Your task to perform on an android device: Search for "logitech g910" on amazon.com, select the first entry, add it to the cart, then select checkout. Image 0: 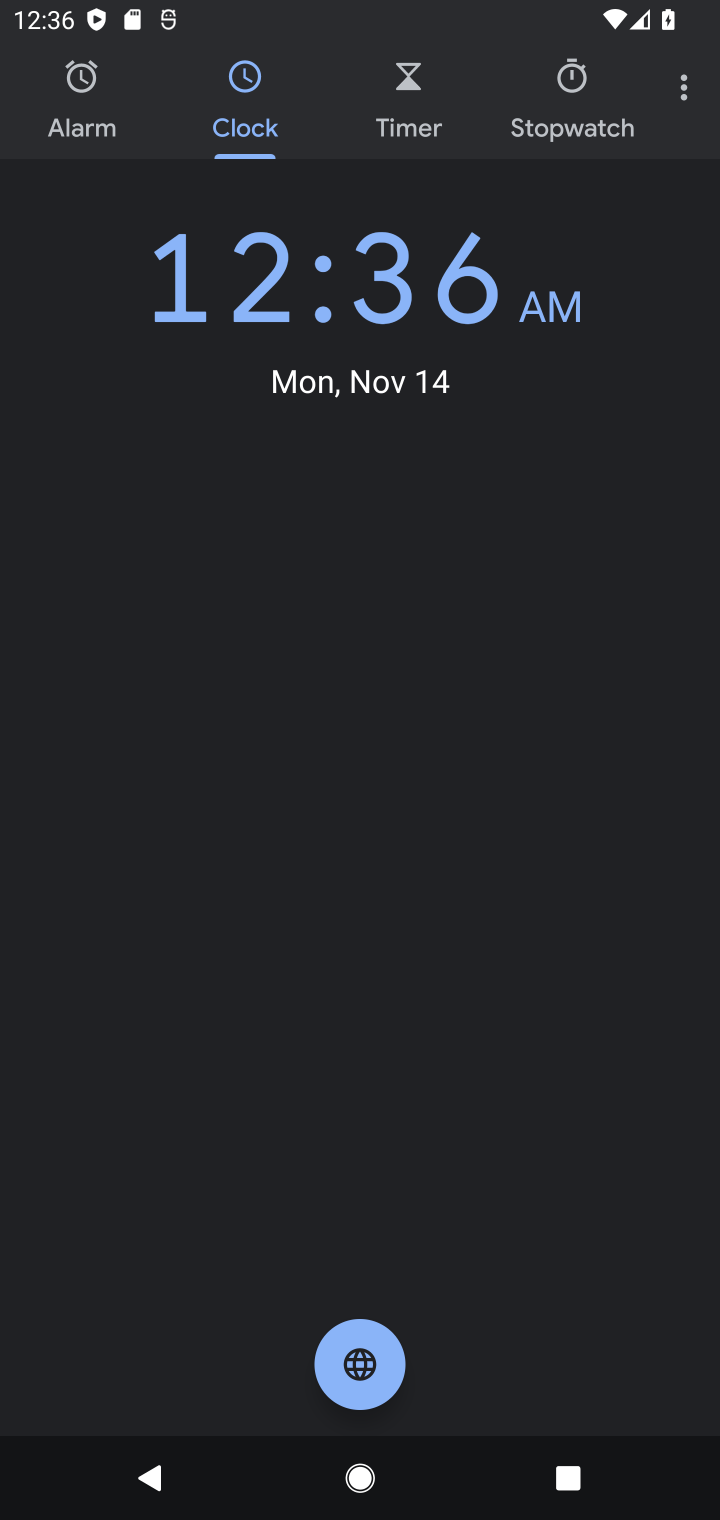
Step 0: press home button
Your task to perform on an android device: Search for "logitech g910" on amazon.com, select the first entry, add it to the cart, then select checkout. Image 1: 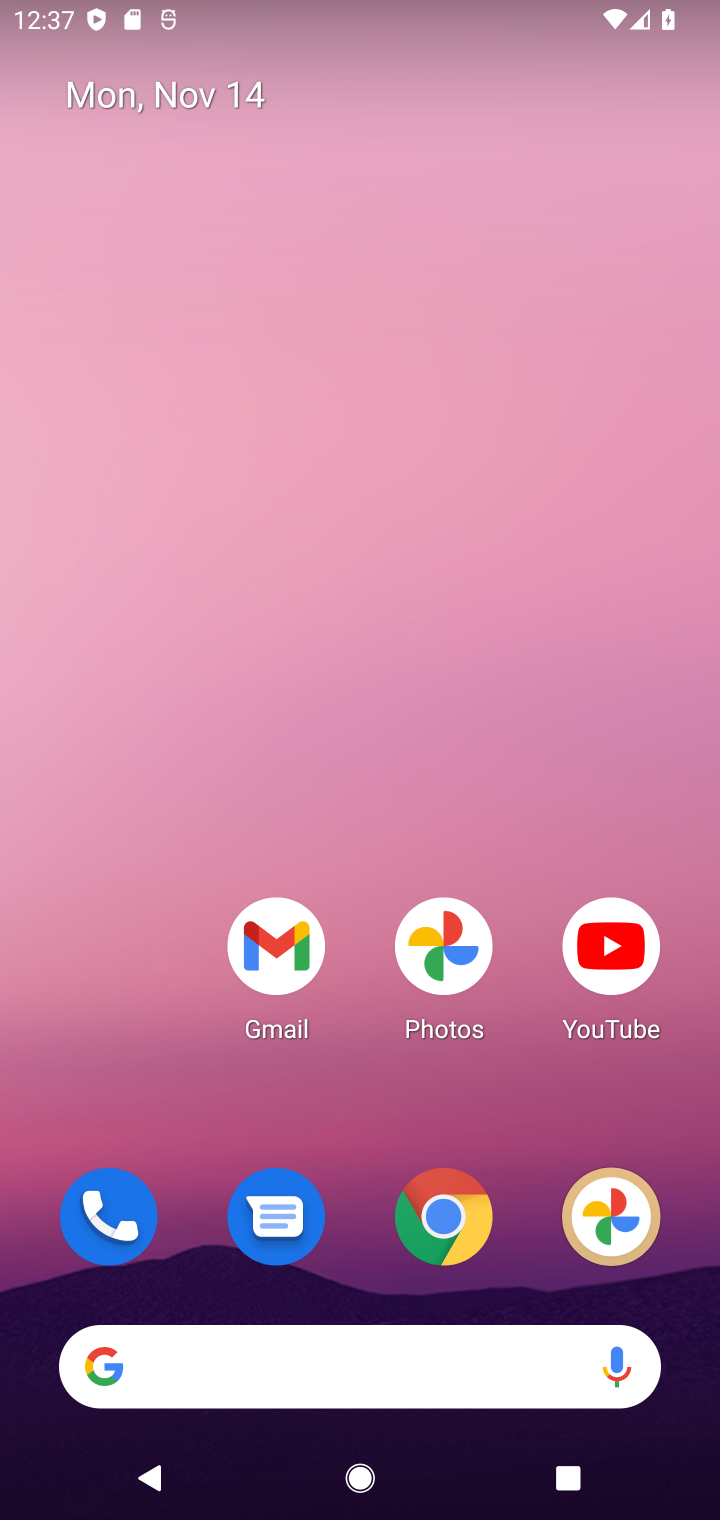
Step 1: click (437, 1211)
Your task to perform on an android device: Search for "logitech g910" on amazon.com, select the first entry, add it to the cart, then select checkout. Image 2: 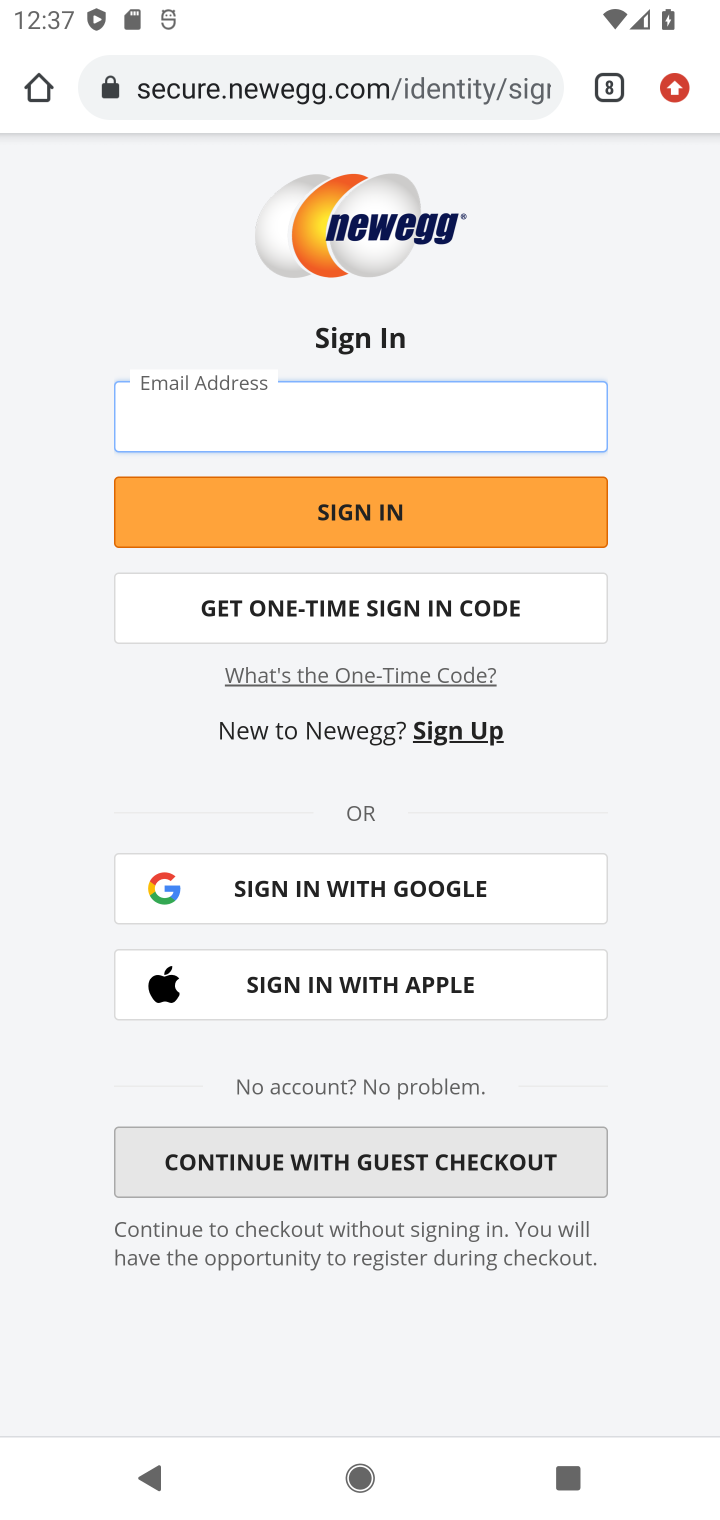
Step 2: click (603, 112)
Your task to perform on an android device: Search for "logitech g910" on amazon.com, select the first entry, add it to the cart, then select checkout. Image 3: 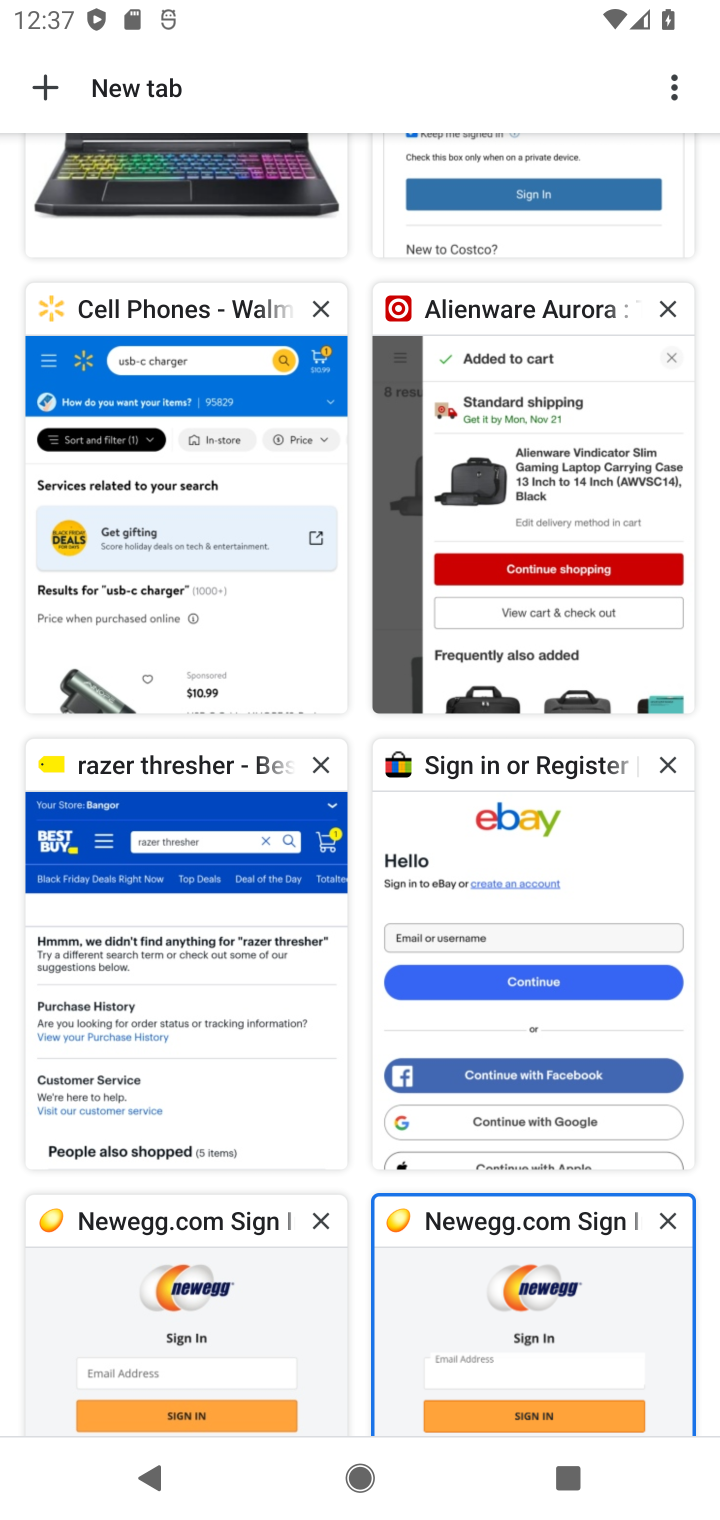
Step 3: click (281, 205)
Your task to perform on an android device: Search for "logitech g910" on amazon.com, select the first entry, add it to the cart, then select checkout. Image 4: 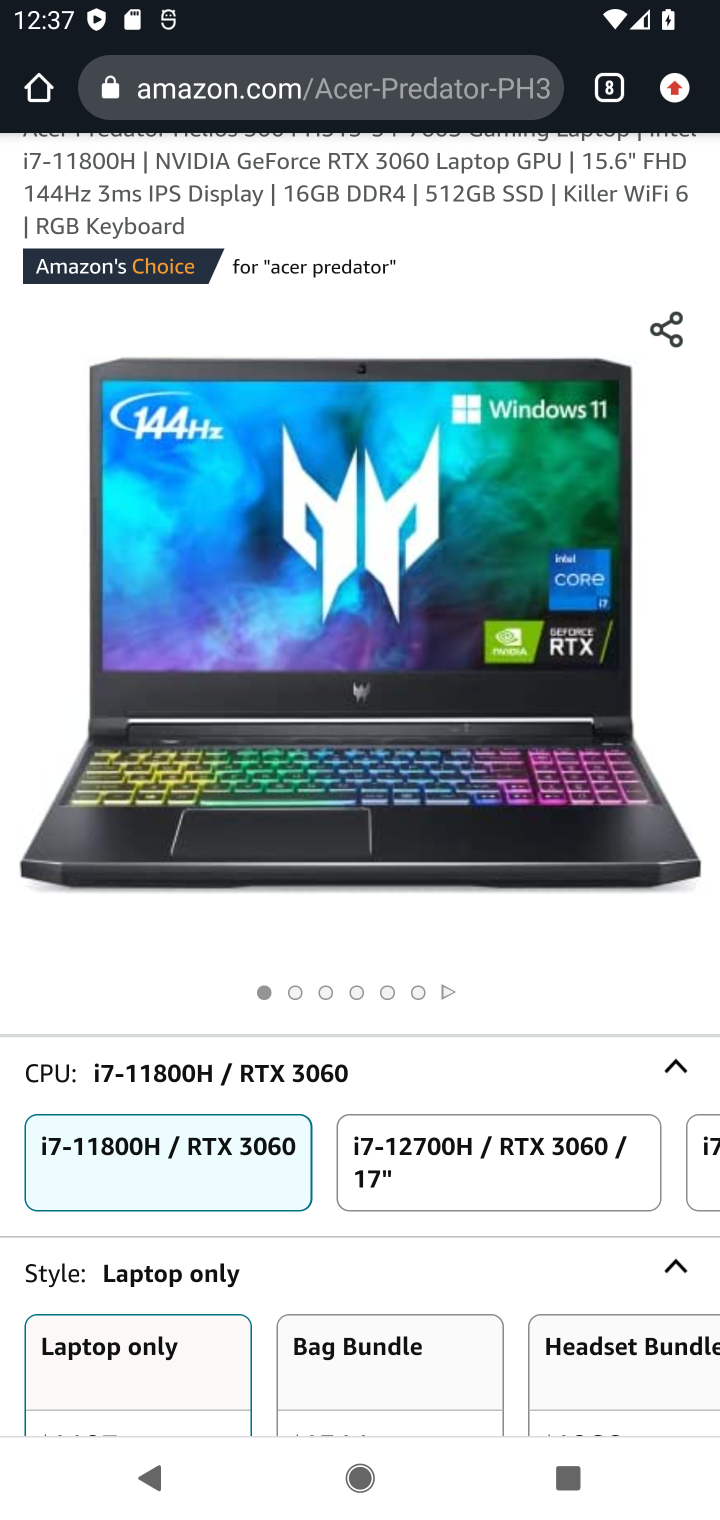
Step 4: drag from (538, 272) to (400, 815)
Your task to perform on an android device: Search for "logitech g910" on amazon.com, select the first entry, add it to the cart, then select checkout. Image 5: 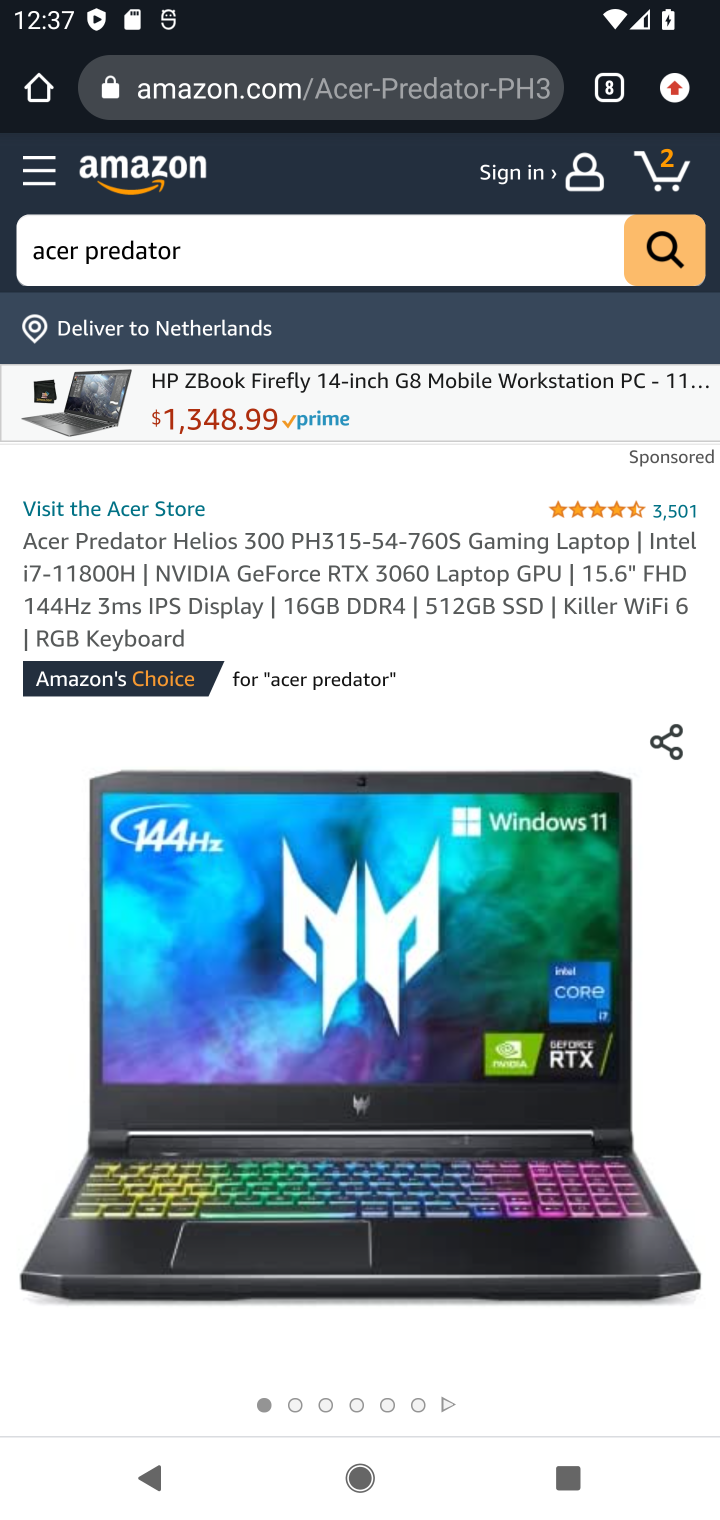
Step 5: drag from (340, 461) to (393, 1185)
Your task to perform on an android device: Search for "logitech g910" on amazon.com, select the first entry, add it to the cart, then select checkout. Image 6: 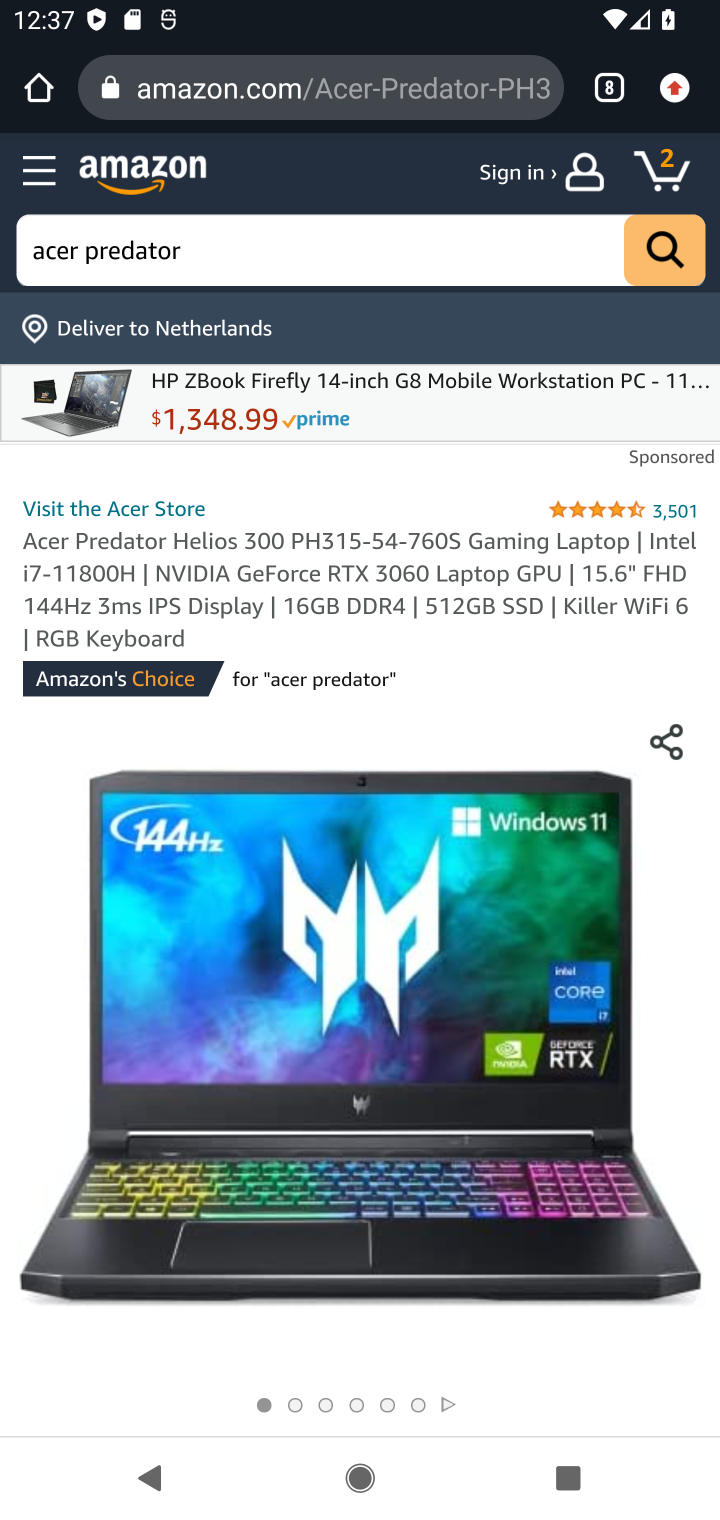
Step 6: click (210, 256)
Your task to perform on an android device: Search for "logitech g910" on amazon.com, select the first entry, add it to the cart, then select checkout. Image 7: 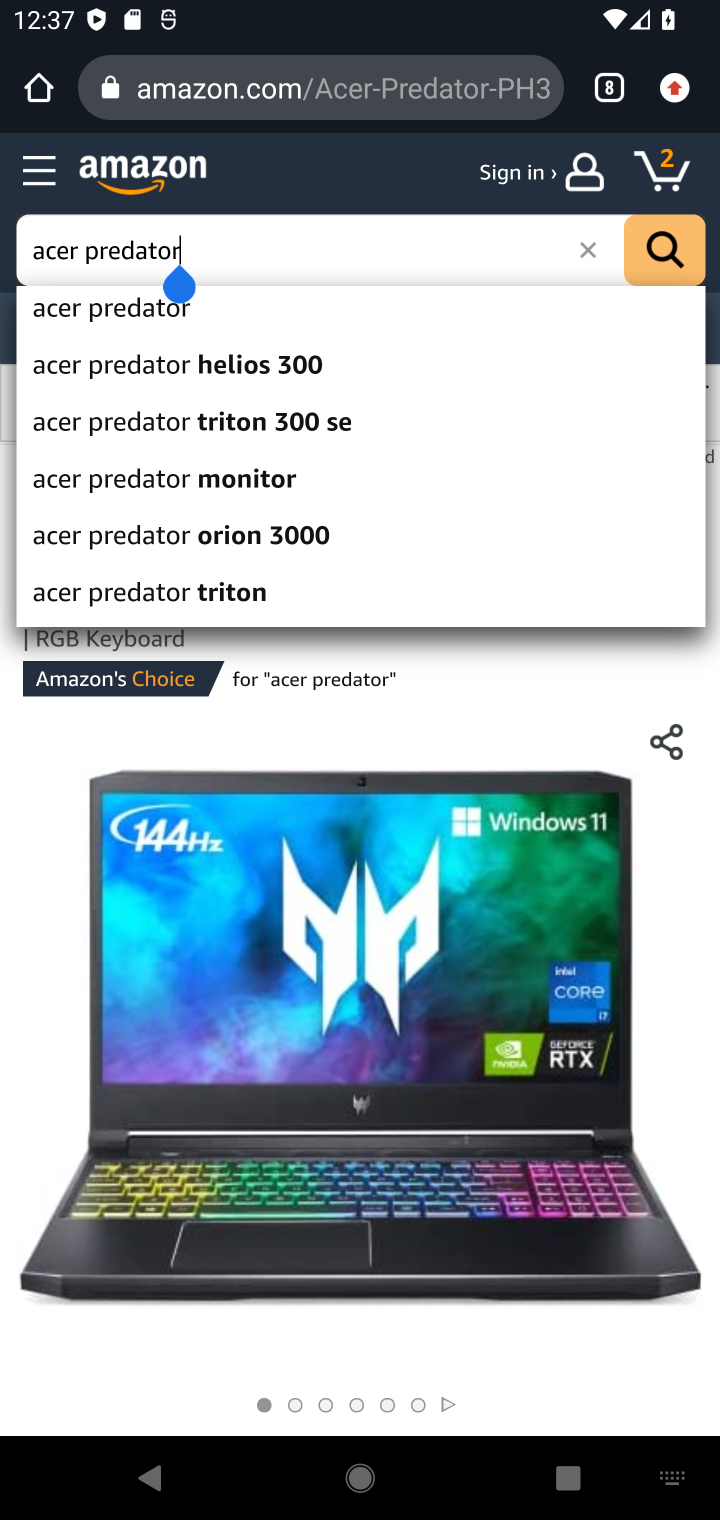
Step 7: click (588, 250)
Your task to perform on an android device: Search for "logitech g910" on amazon.com, select the first entry, add it to the cart, then select checkout. Image 8: 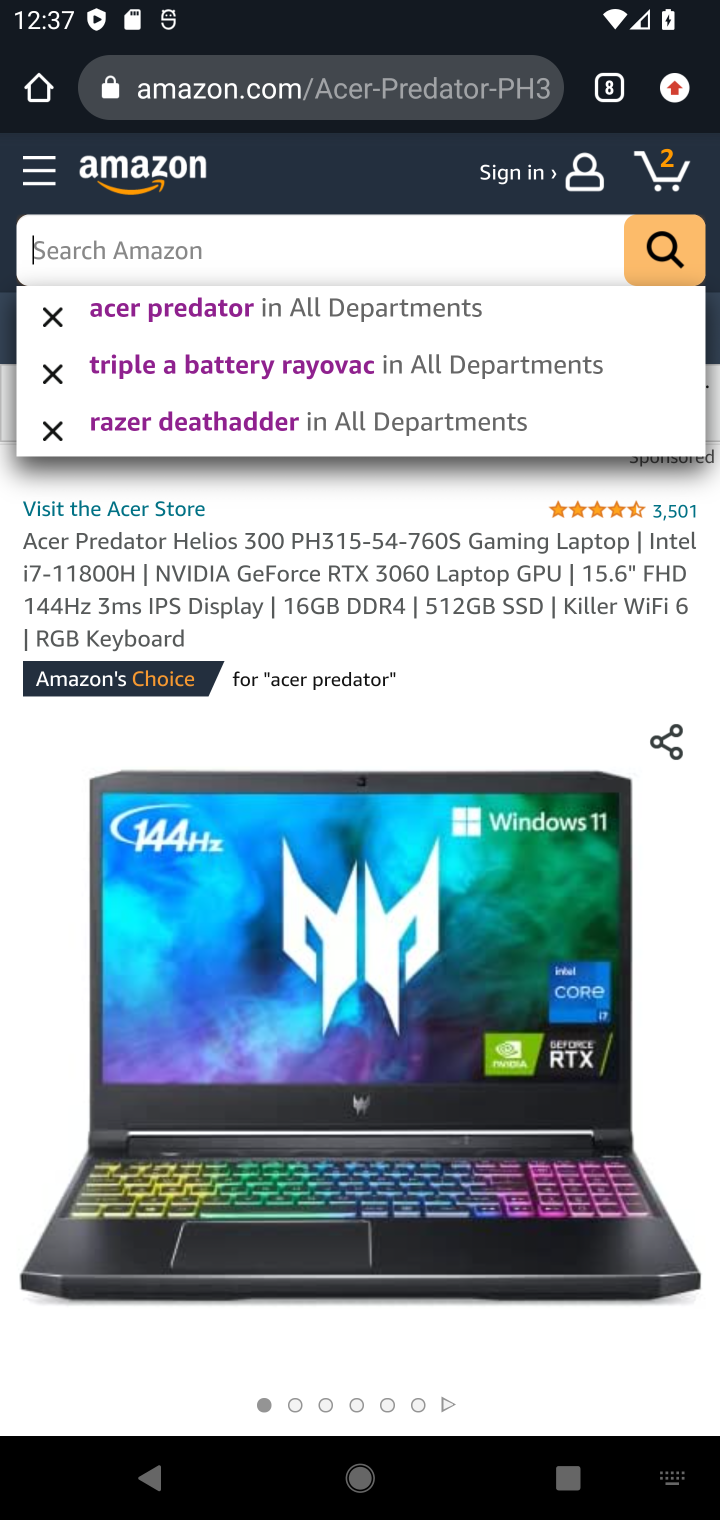
Step 8: type "logitech g910"
Your task to perform on an android device: Search for "logitech g910" on amazon.com, select the first entry, add it to the cart, then select checkout. Image 9: 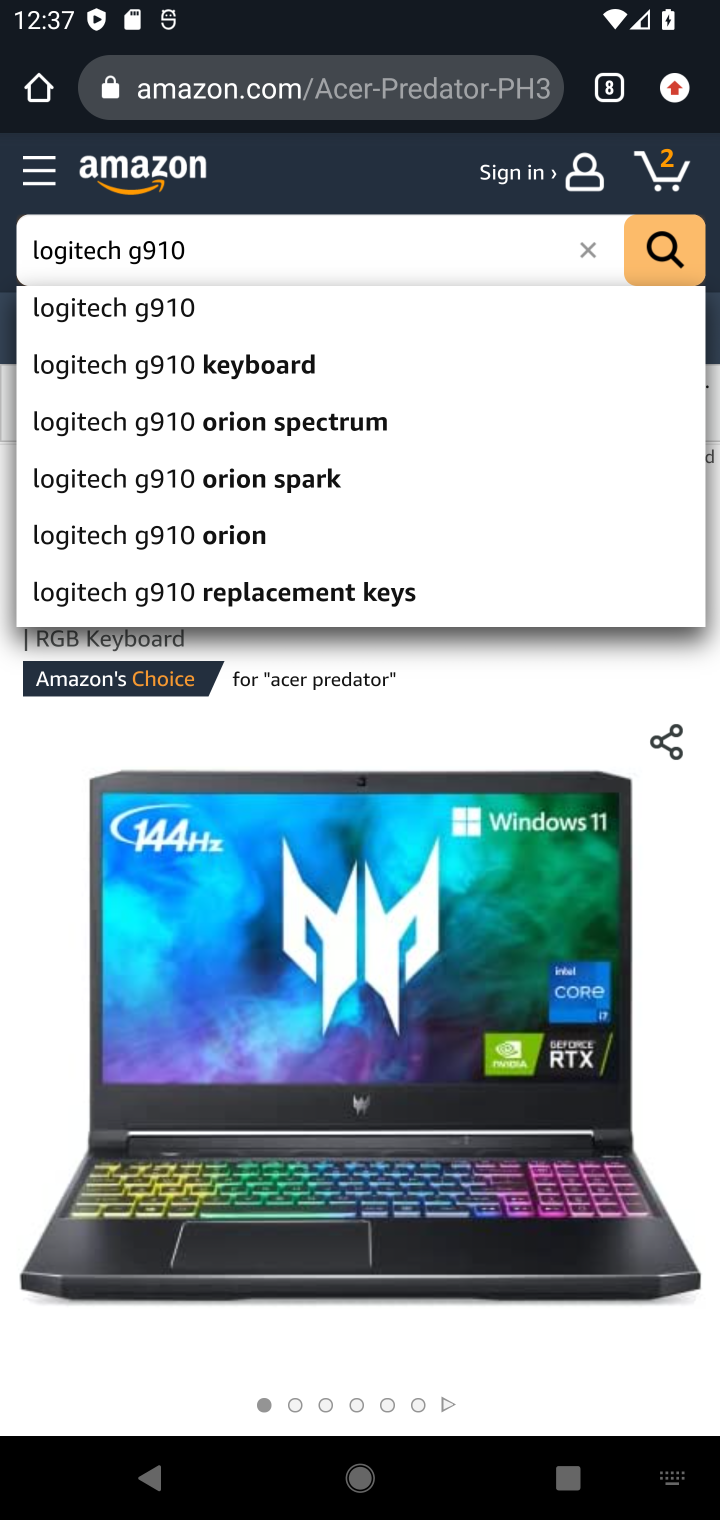
Step 9: click (149, 358)
Your task to perform on an android device: Search for "logitech g910" on amazon.com, select the first entry, add it to the cart, then select checkout. Image 10: 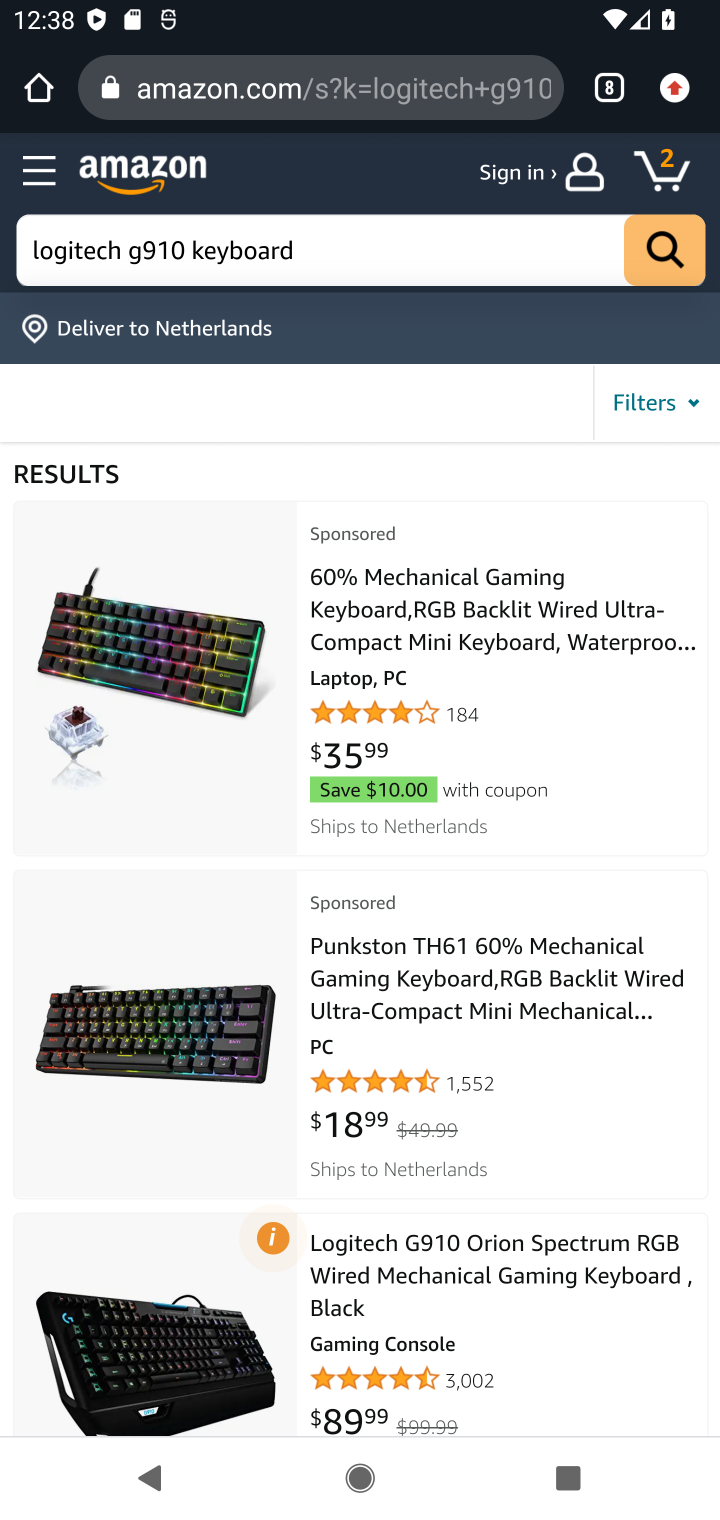
Step 10: click (504, 1258)
Your task to perform on an android device: Search for "logitech g910" on amazon.com, select the first entry, add it to the cart, then select checkout. Image 11: 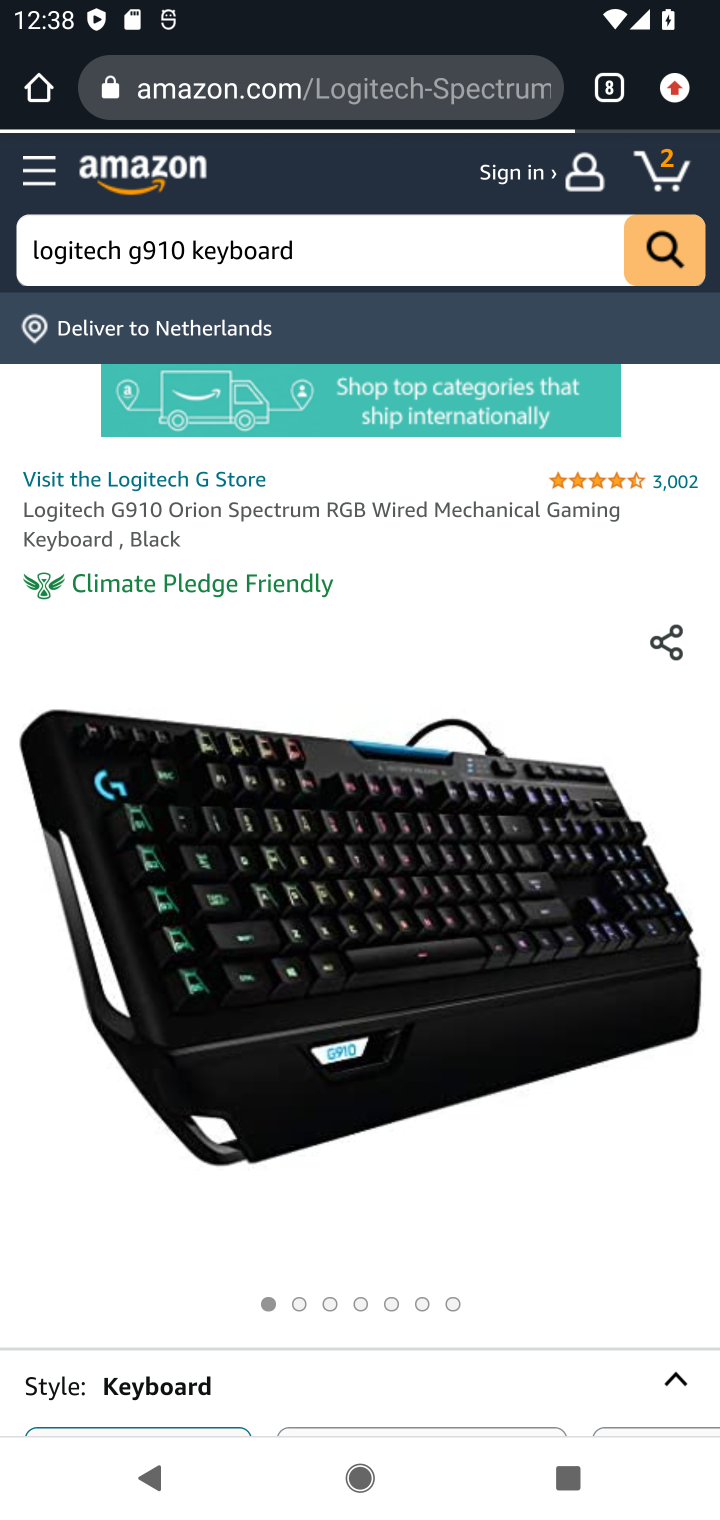
Step 11: drag from (504, 1258) to (683, 737)
Your task to perform on an android device: Search for "logitech g910" on amazon.com, select the first entry, add it to the cart, then select checkout. Image 12: 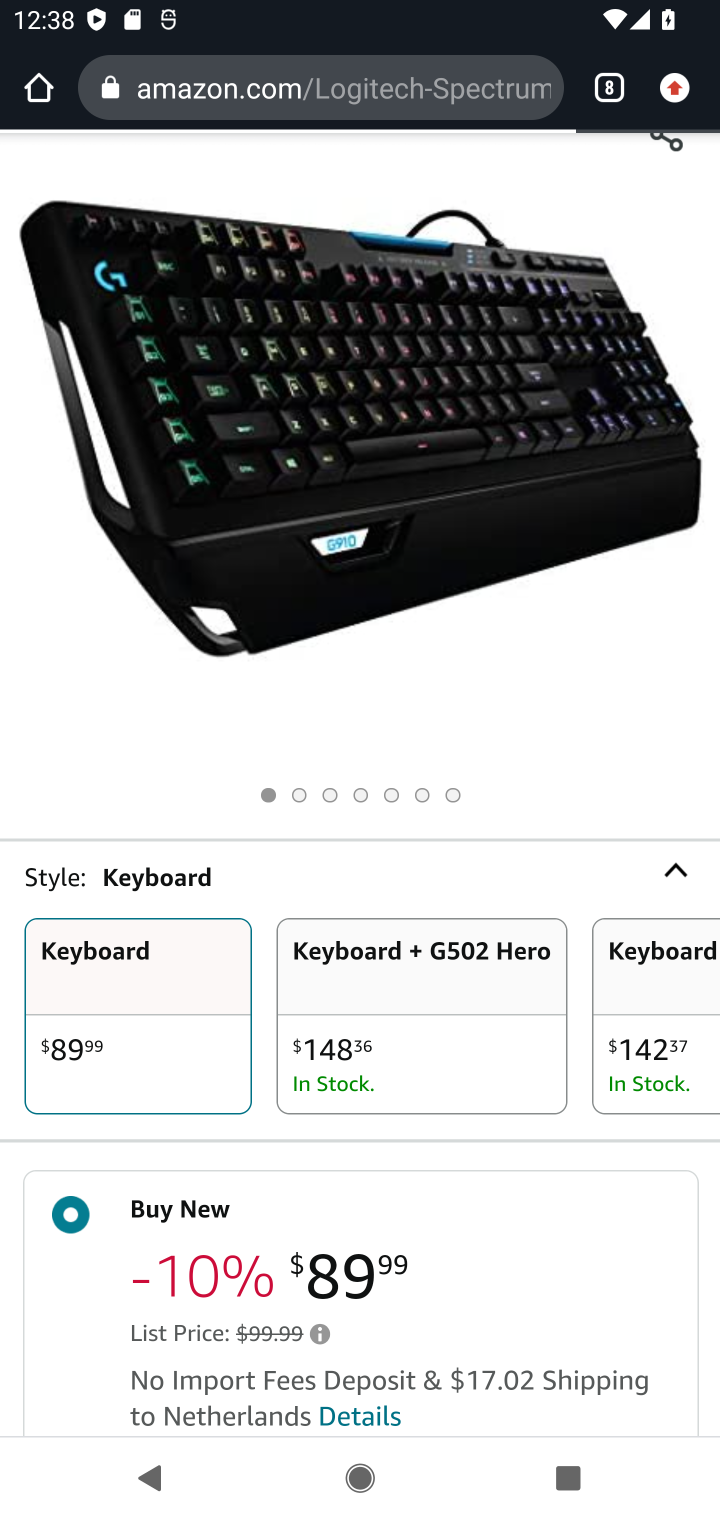
Step 12: drag from (544, 1114) to (709, 1067)
Your task to perform on an android device: Search for "logitech g910" on amazon.com, select the first entry, add it to the cart, then select checkout. Image 13: 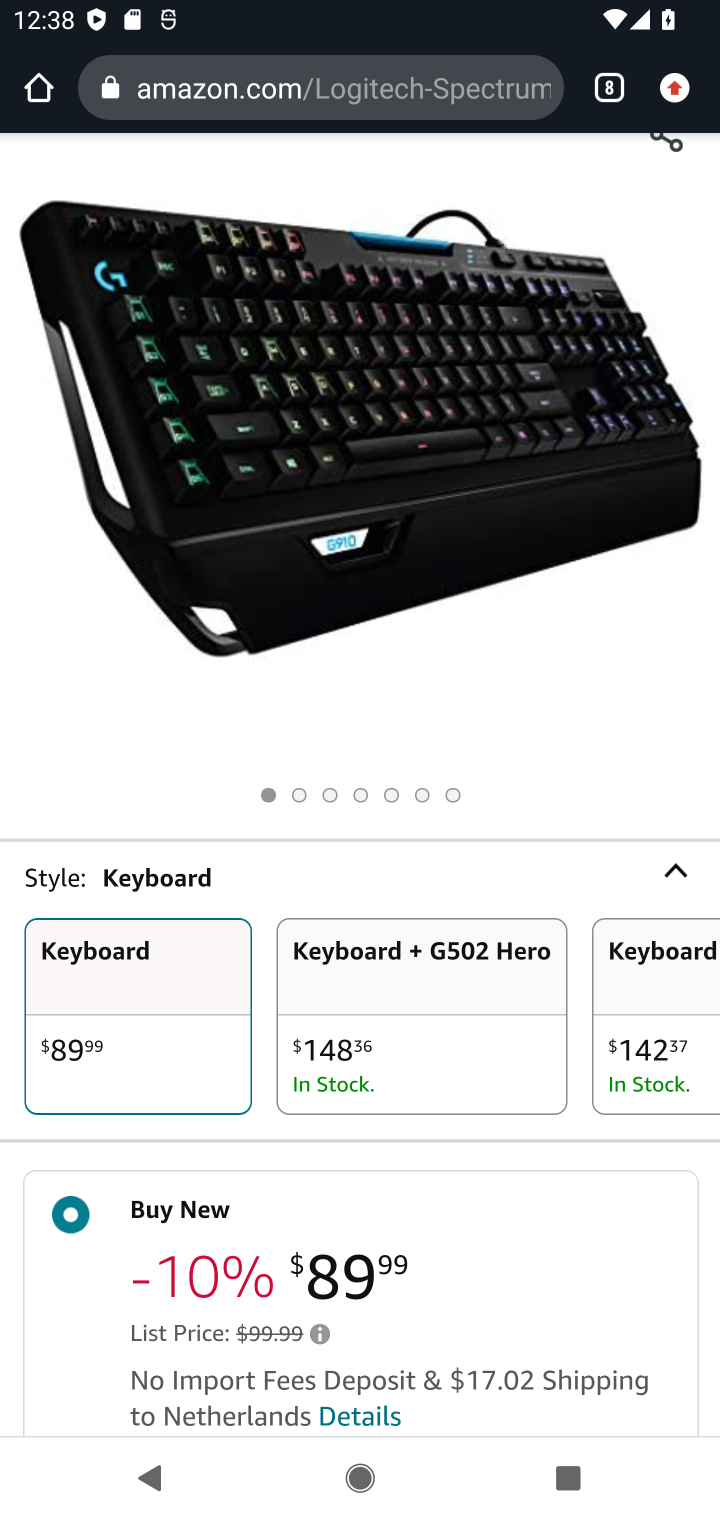
Step 13: drag from (409, 1281) to (476, 487)
Your task to perform on an android device: Search for "logitech g910" on amazon.com, select the first entry, add it to the cart, then select checkout. Image 14: 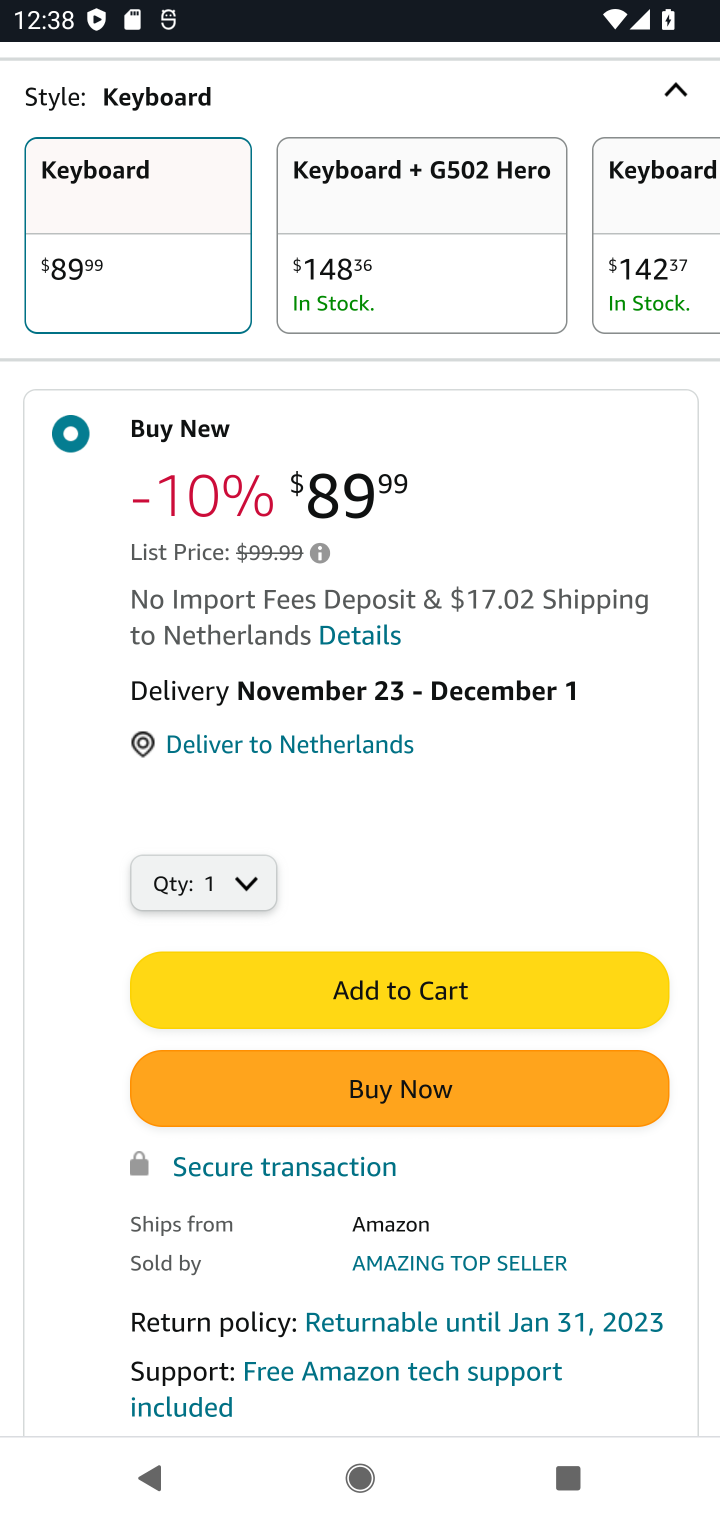
Step 14: click (379, 989)
Your task to perform on an android device: Search for "logitech g910" on amazon.com, select the first entry, add it to the cart, then select checkout. Image 15: 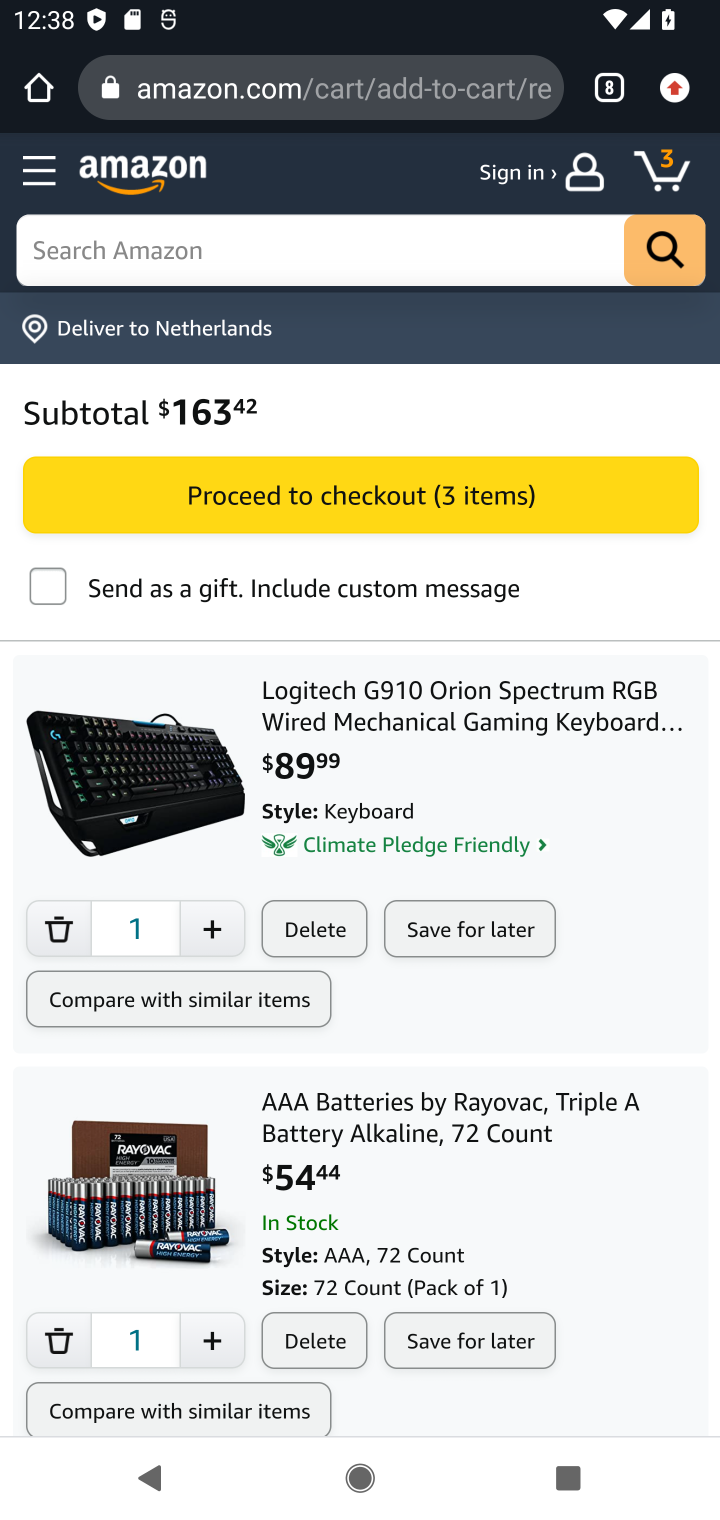
Step 15: click (438, 482)
Your task to perform on an android device: Search for "logitech g910" on amazon.com, select the first entry, add it to the cart, then select checkout. Image 16: 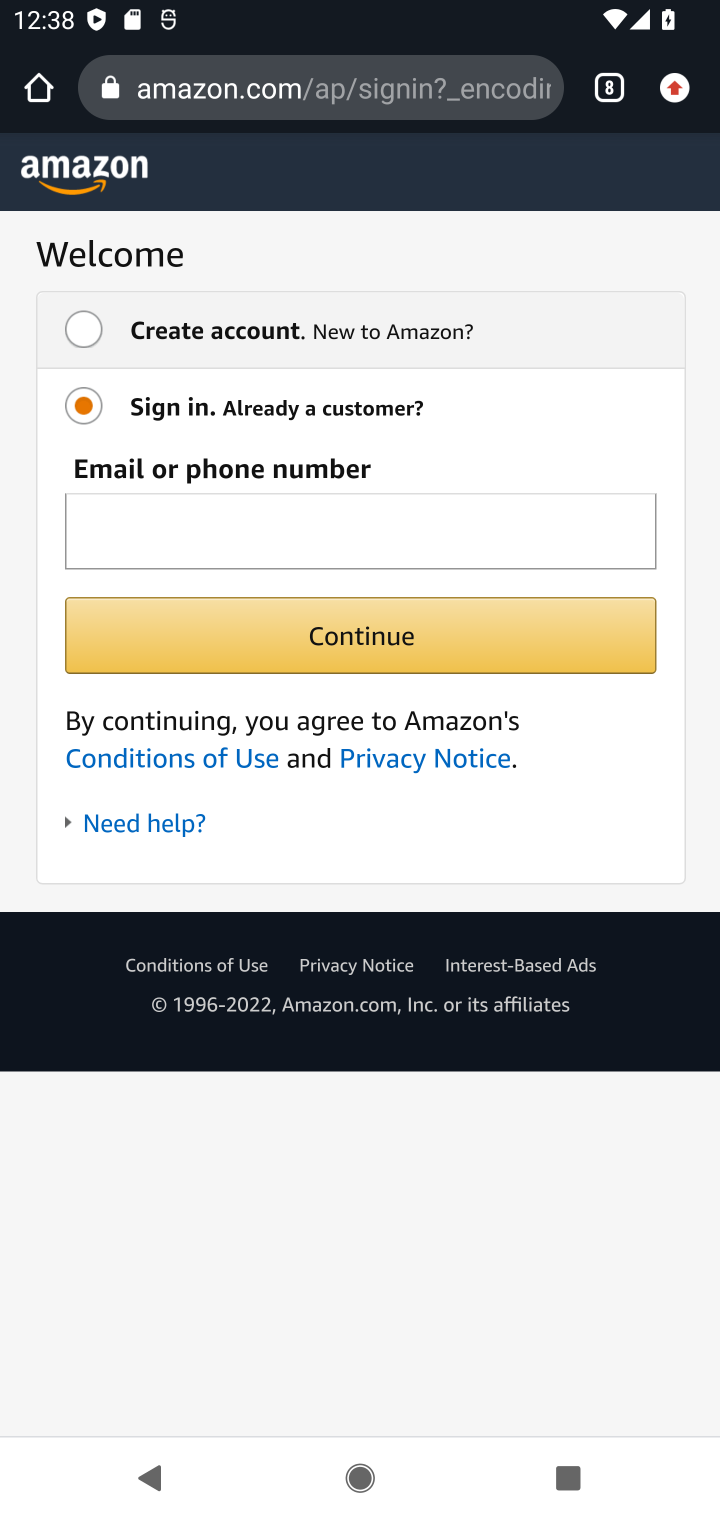
Step 16: task complete